Your task to perform on an android device: turn on bluetooth scan Image 0: 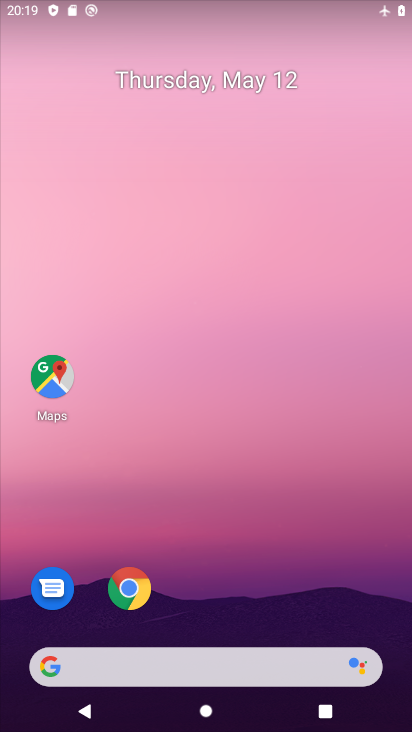
Step 0: drag from (187, 661) to (334, 65)
Your task to perform on an android device: turn on bluetooth scan Image 1: 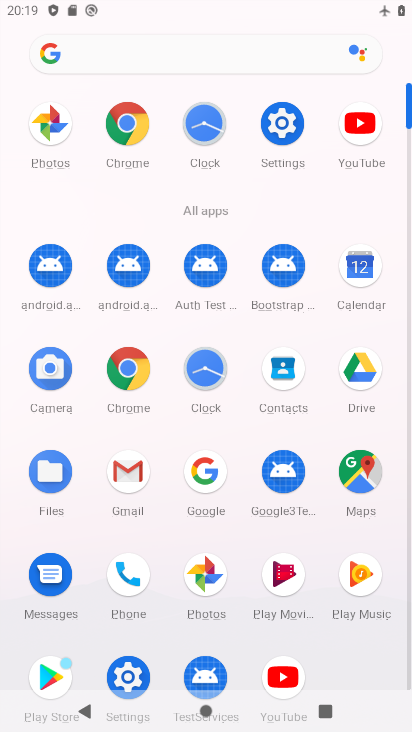
Step 1: click (128, 677)
Your task to perform on an android device: turn on bluetooth scan Image 2: 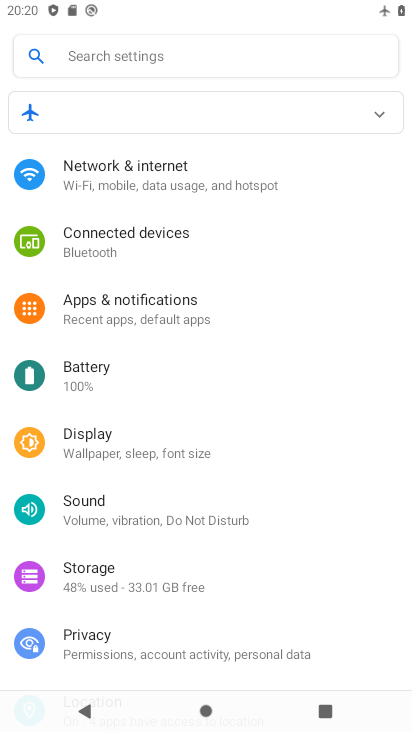
Step 2: click (197, 258)
Your task to perform on an android device: turn on bluetooth scan Image 3: 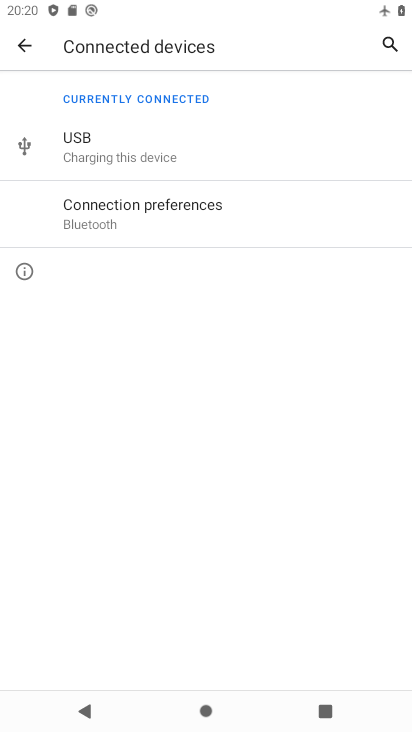
Step 3: click (206, 222)
Your task to perform on an android device: turn on bluetooth scan Image 4: 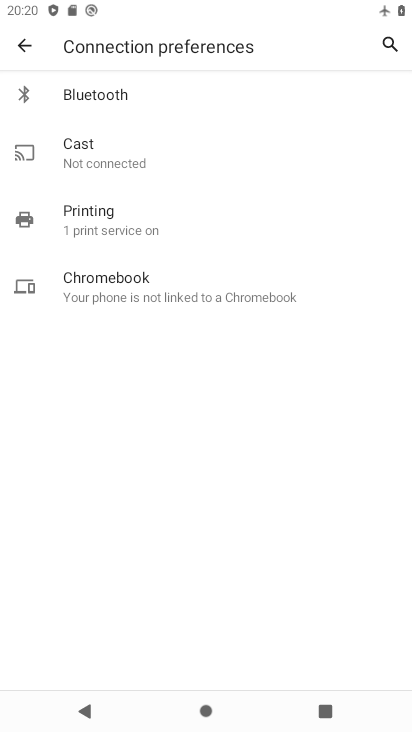
Step 4: click (159, 81)
Your task to perform on an android device: turn on bluetooth scan Image 5: 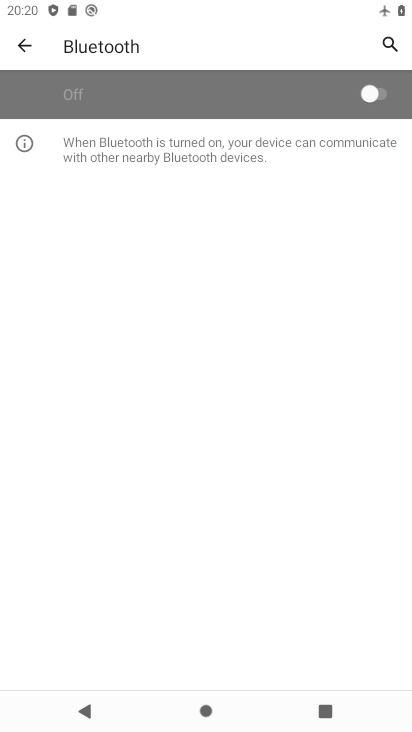
Step 5: click (395, 93)
Your task to perform on an android device: turn on bluetooth scan Image 6: 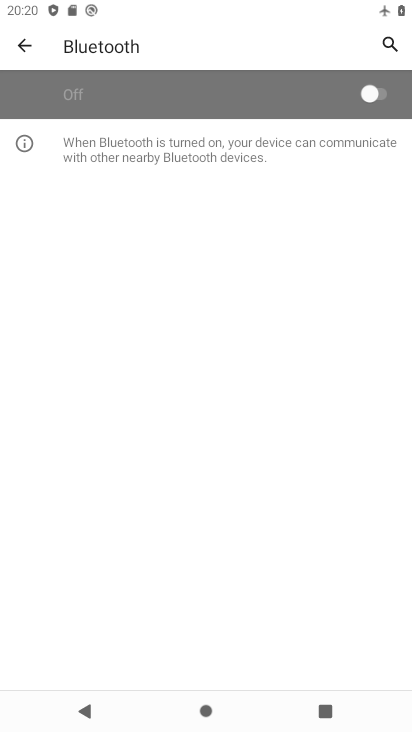
Step 6: click (395, 93)
Your task to perform on an android device: turn on bluetooth scan Image 7: 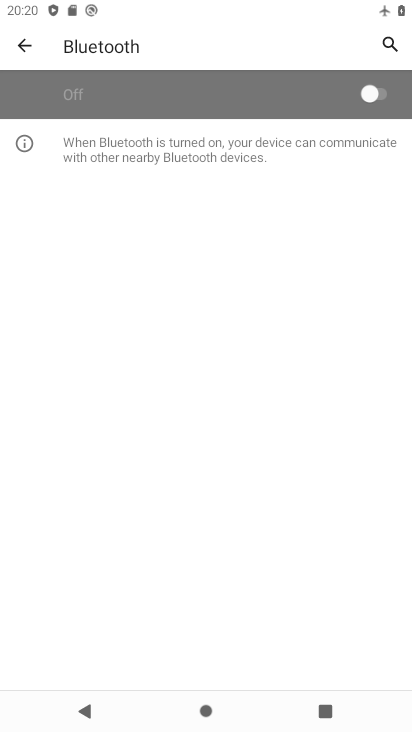
Step 7: task complete